Your task to perform on an android device: turn off priority inbox in the gmail app Image 0: 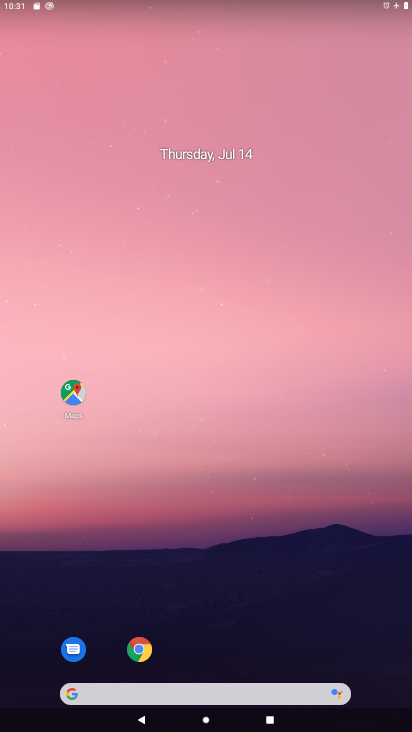
Step 0: drag from (179, 721) to (296, 0)
Your task to perform on an android device: turn off priority inbox in the gmail app Image 1: 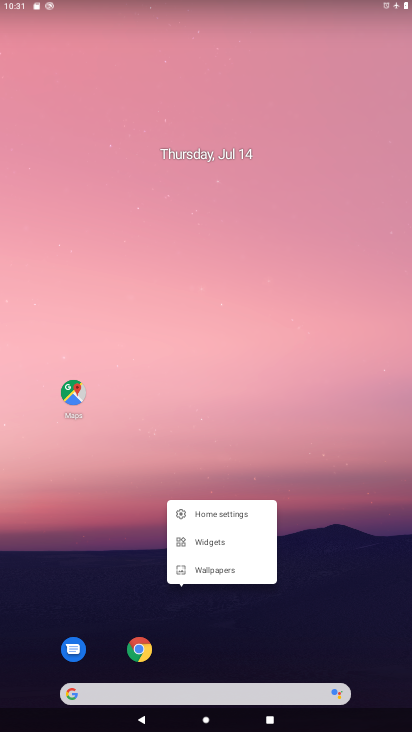
Step 1: drag from (166, 719) to (202, 19)
Your task to perform on an android device: turn off priority inbox in the gmail app Image 2: 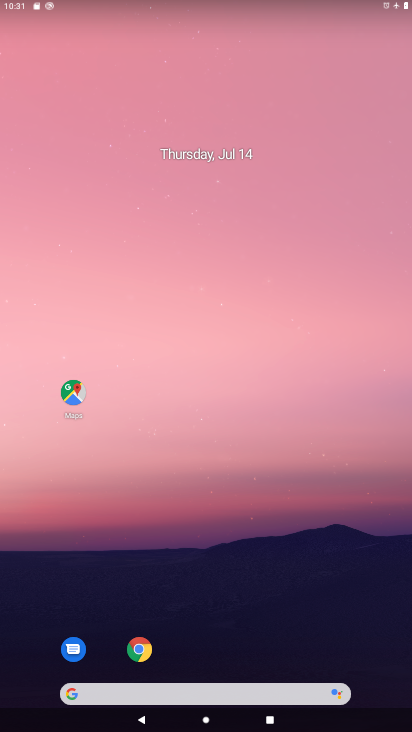
Step 2: drag from (187, 724) to (317, 3)
Your task to perform on an android device: turn off priority inbox in the gmail app Image 3: 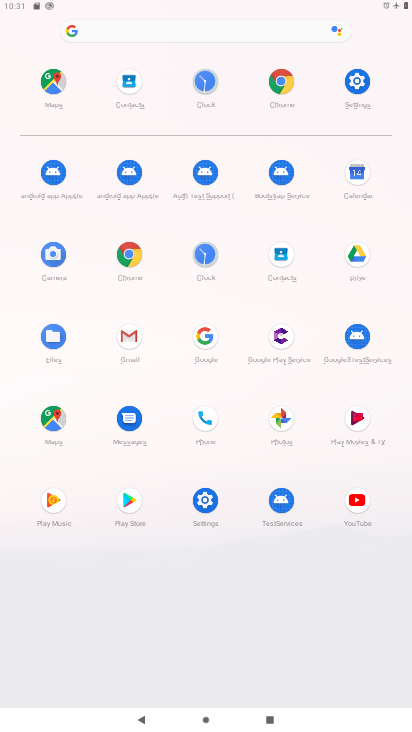
Step 3: click (130, 331)
Your task to perform on an android device: turn off priority inbox in the gmail app Image 4: 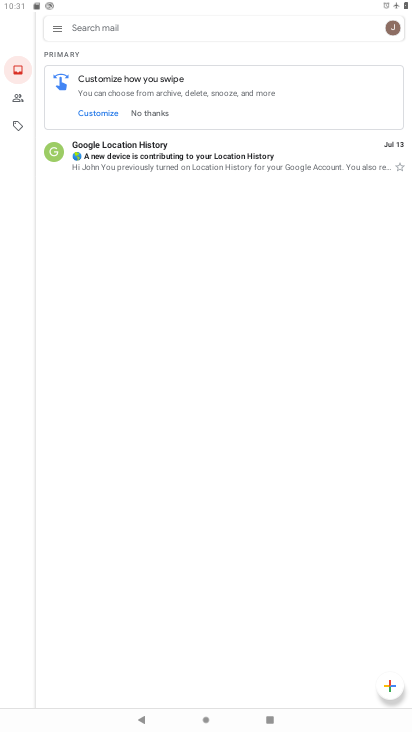
Step 4: click (57, 25)
Your task to perform on an android device: turn off priority inbox in the gmail app Image 5: 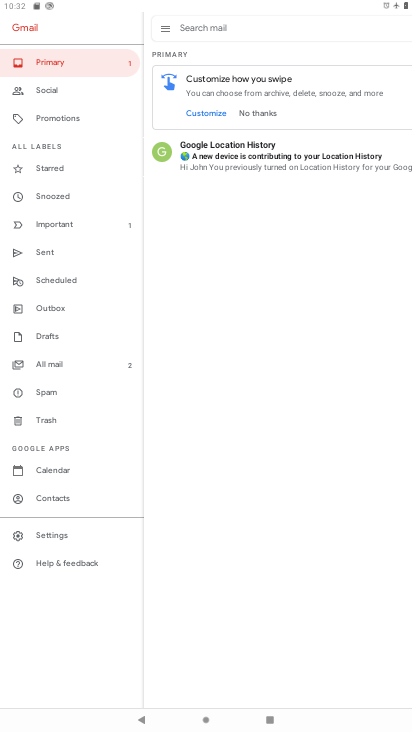
Step 5: click (65, 540)
Your task to perform on an android device: turn off priority inbox in the gmail app Image 6: 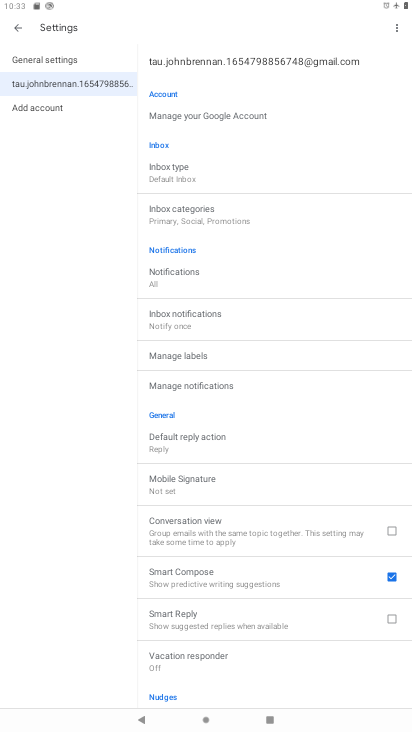
Step 6: click (199, 170)
Your task to perform on an android device: turn off priority inbox in the gmail app Image 7: 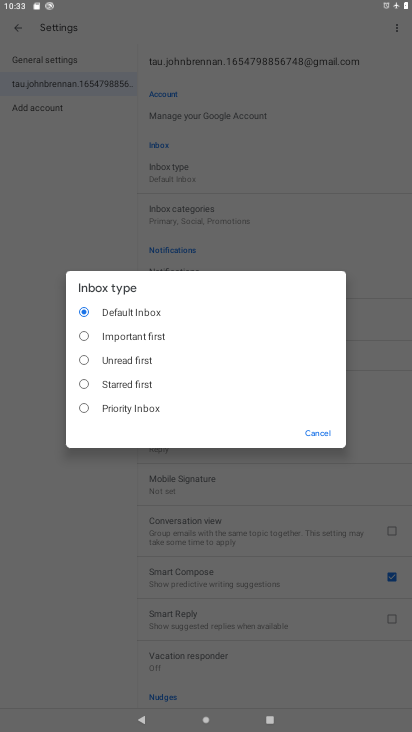
Step 7: task complete